Your task to perform on an android device: make emails show in primary in the gmail app Image 0: 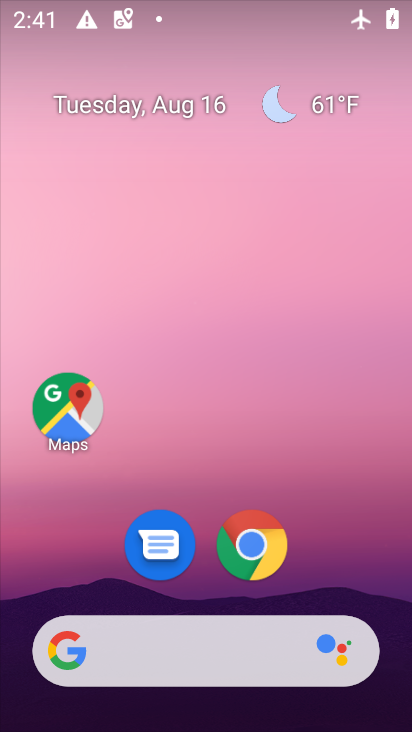
Step 0: drag from (202, 564) to (167, 300)
Your task to perform on an android device: make emails show in primary in the gmail app Image 1: 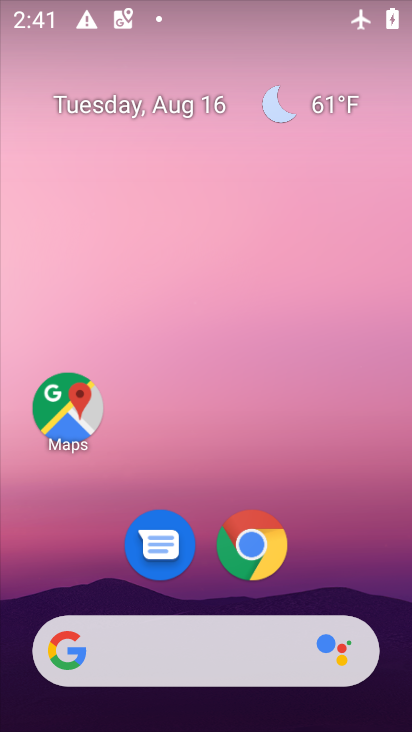
Step 1: drag from (161, 513) to (161, 231)
Your task to perform on an android device: make emails show in primary in the gmail app Image 2: 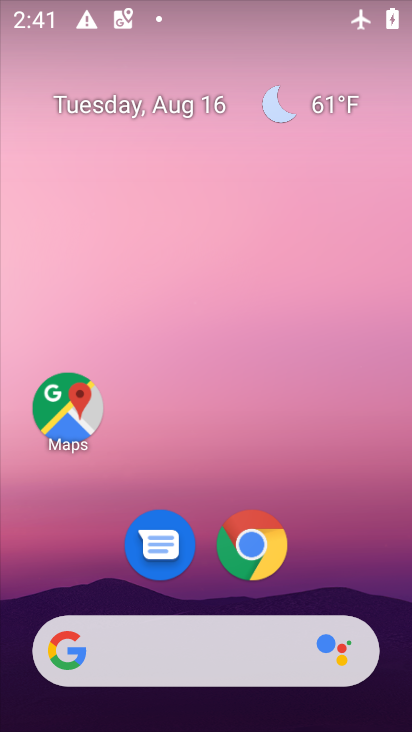
Step 2: drag from (175, 561) to (168, 198)
Your task to perform on an android device: make emails show in primary in the gmail app Image 3: 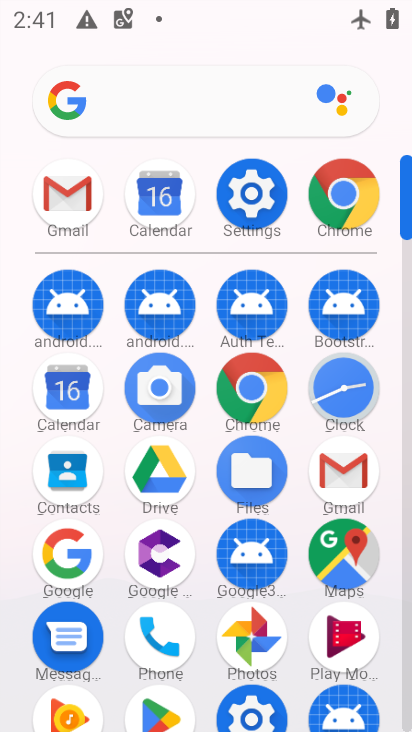
Step 3: click (60, 198)
Your task to perform on an android device: make emails show in primary in the gmail app Image 4: 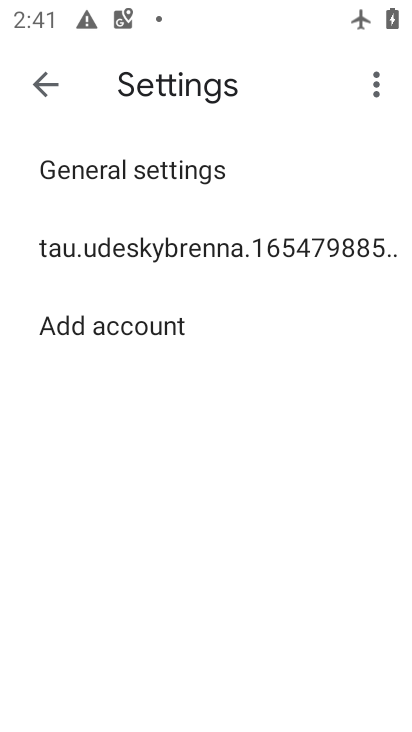
Step 4: click (176, 258)
Your task to perform on an android device: make emails show in primary in the gmail app Image 5: 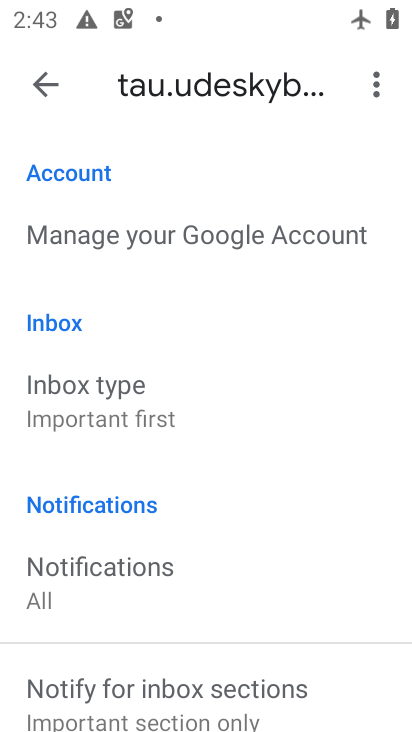
Step 5: click (80, 396)
Your task to perform on an android device: make emails show in primary in the gmail app Image 6: 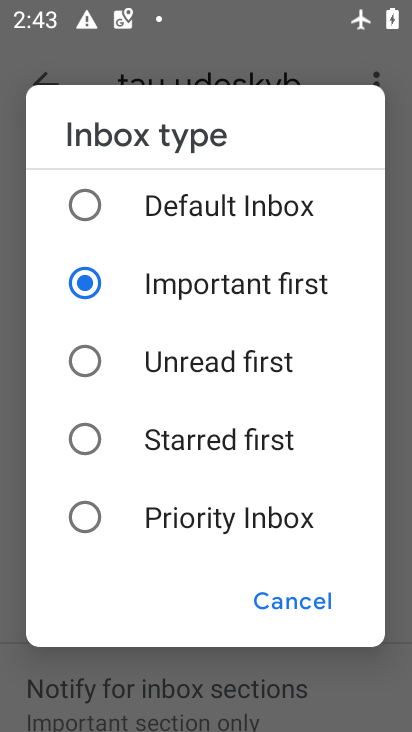
Step 6: click (251, 210)
Your task to perform on an android device: make emails show in primary in the gmail app Image 7: 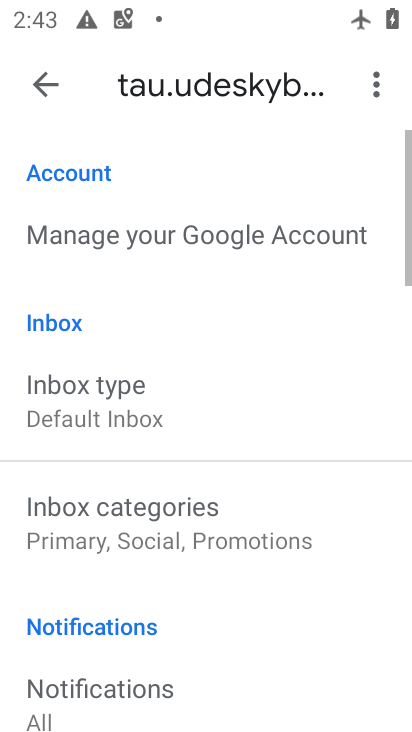
Step 7: click (149, 533)
Your task to perform on an android device: make emails show in primary in the gmail app Image 8: 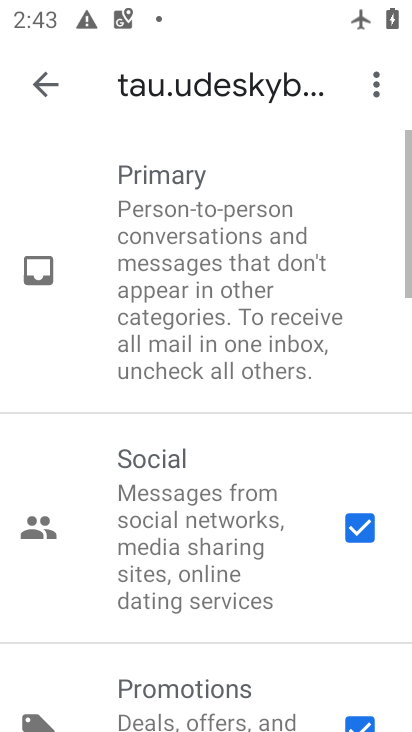
Step 8: click (354, 530)
Your task to perform on an android device: make emails show in primary in the gmail app Image 9: 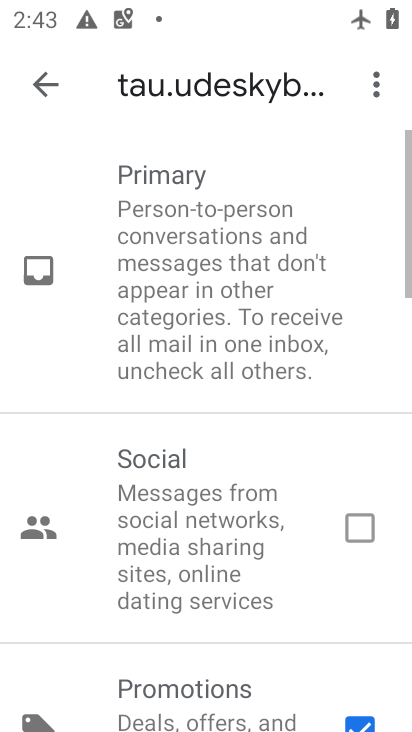
Step 9: click (352, 725)
Your task to perform on an android device: make emails show in primary in the gmail app Image 10: 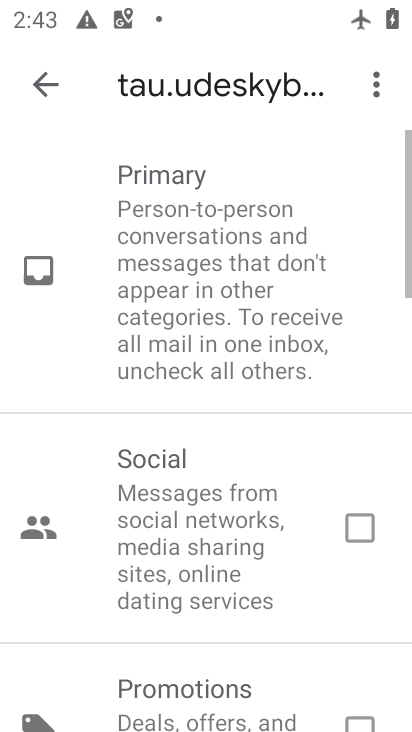
Step 10: click (47, 83)
Your task to perform on an android device: make emails show in primary in the gmail app Image 11: 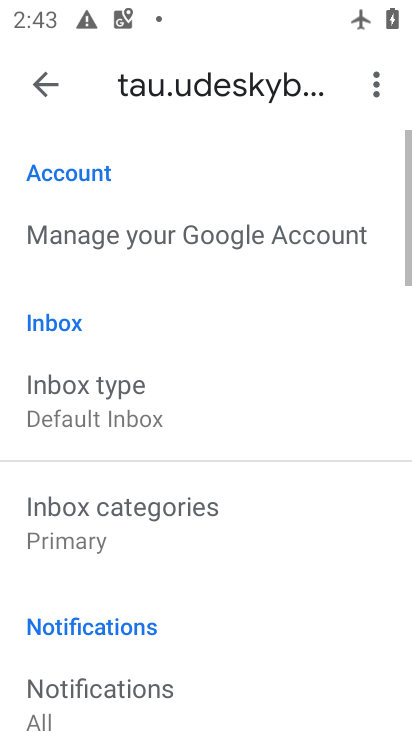
Step 11: task complete